Your task to perform on an android device: Open ESPN.com Image 0: 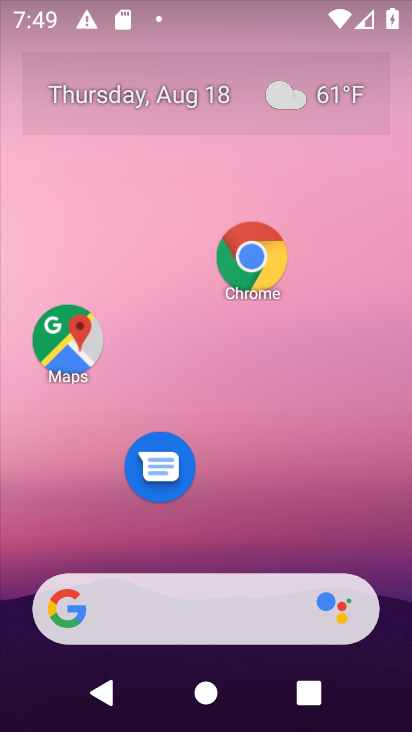
Step 0: click (268, 610)
Your task to perform on an android device: Open ESPN.com Image 1: 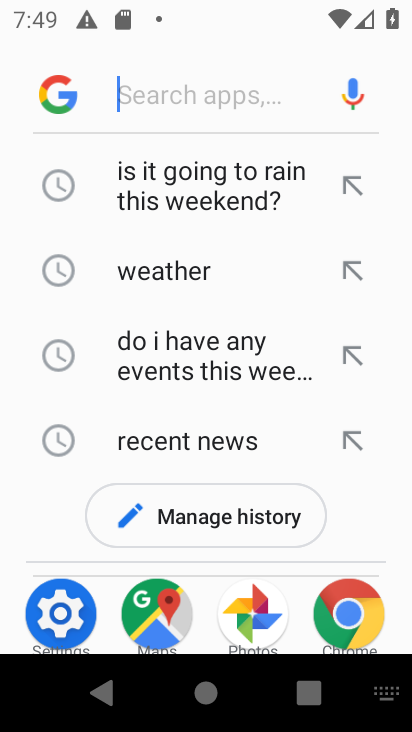
Step 1: type " ESPN.com"
Your task to perform on an android device: Open ESPN.com Image 2: 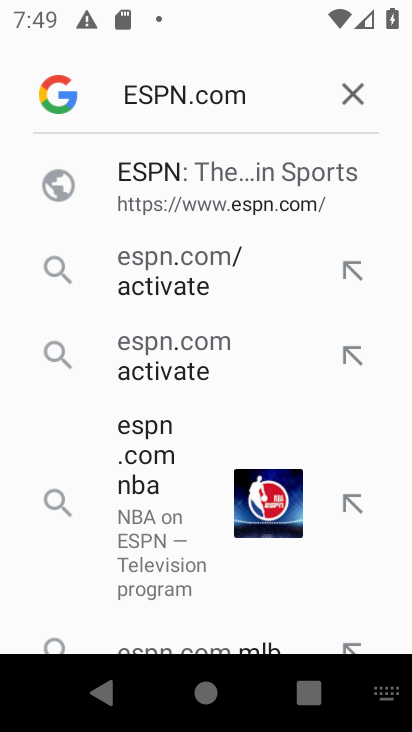
Step 2: press enter
Your task to perform on an android device: Open ESPN.com Image 3: 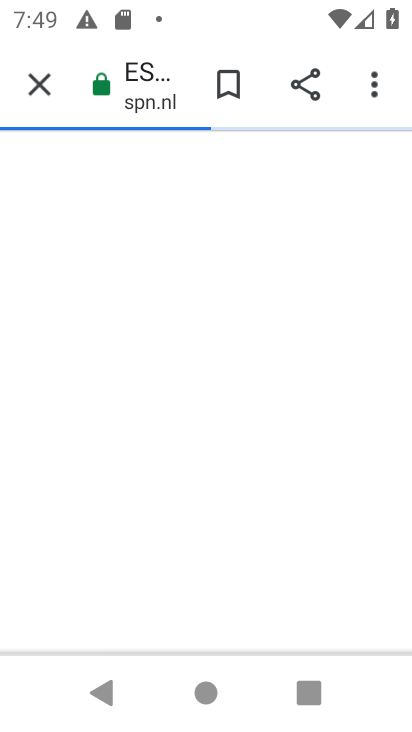
Step 3: task complete